Your task to perform on an android device: Open wifi settings Image 0: 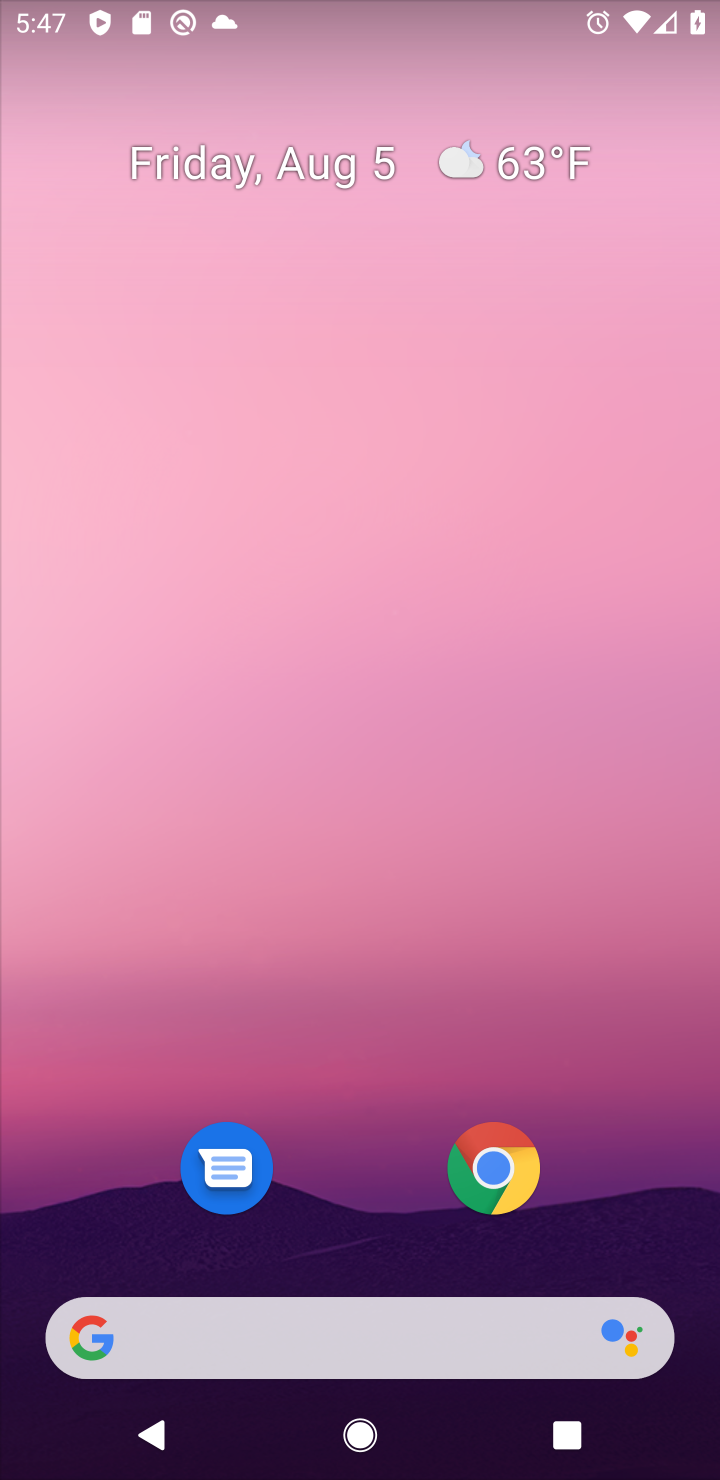
Step 0: click (328, 245)
Your task to perform on an android device: Open wifi settings Image 1: 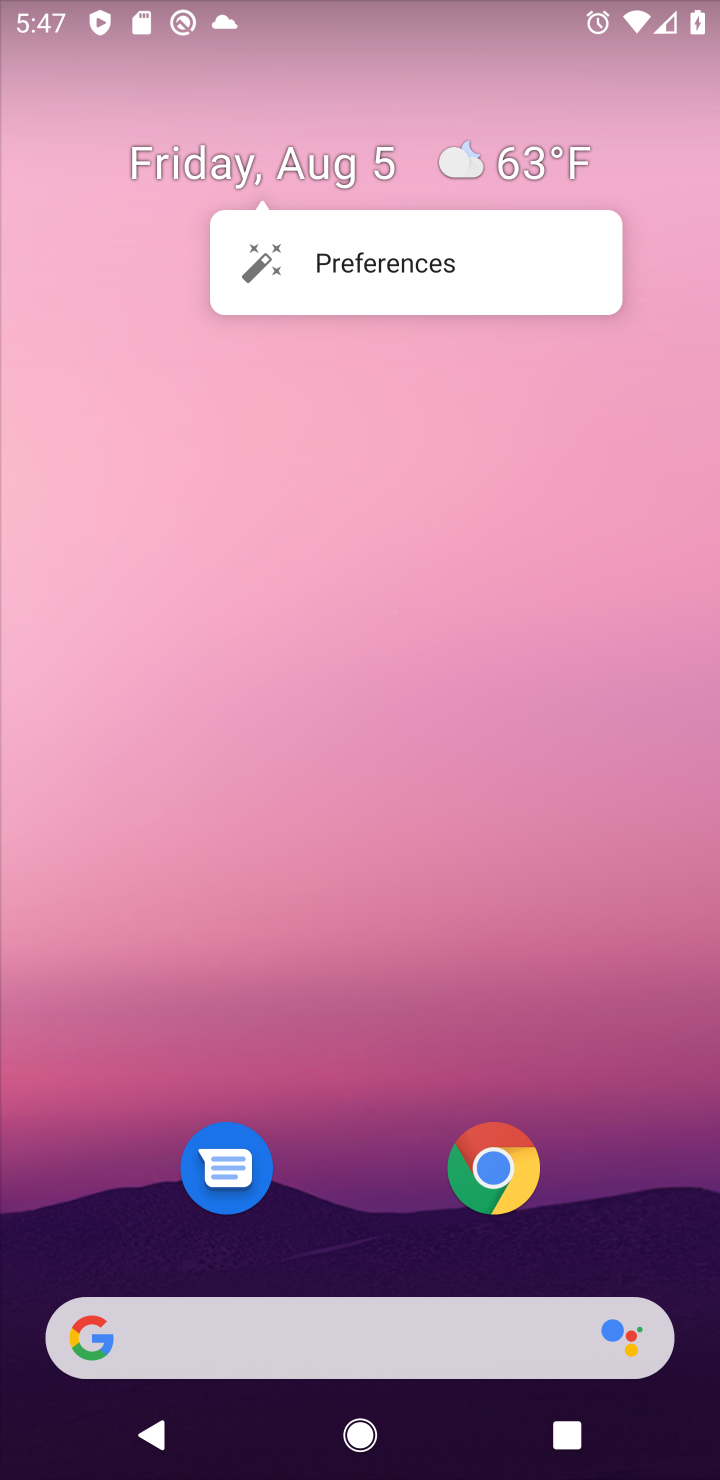
Step 1: drag from (352, 771) to (369, 286)
Your task to perform on an android device: Open wifi settings Image 2: 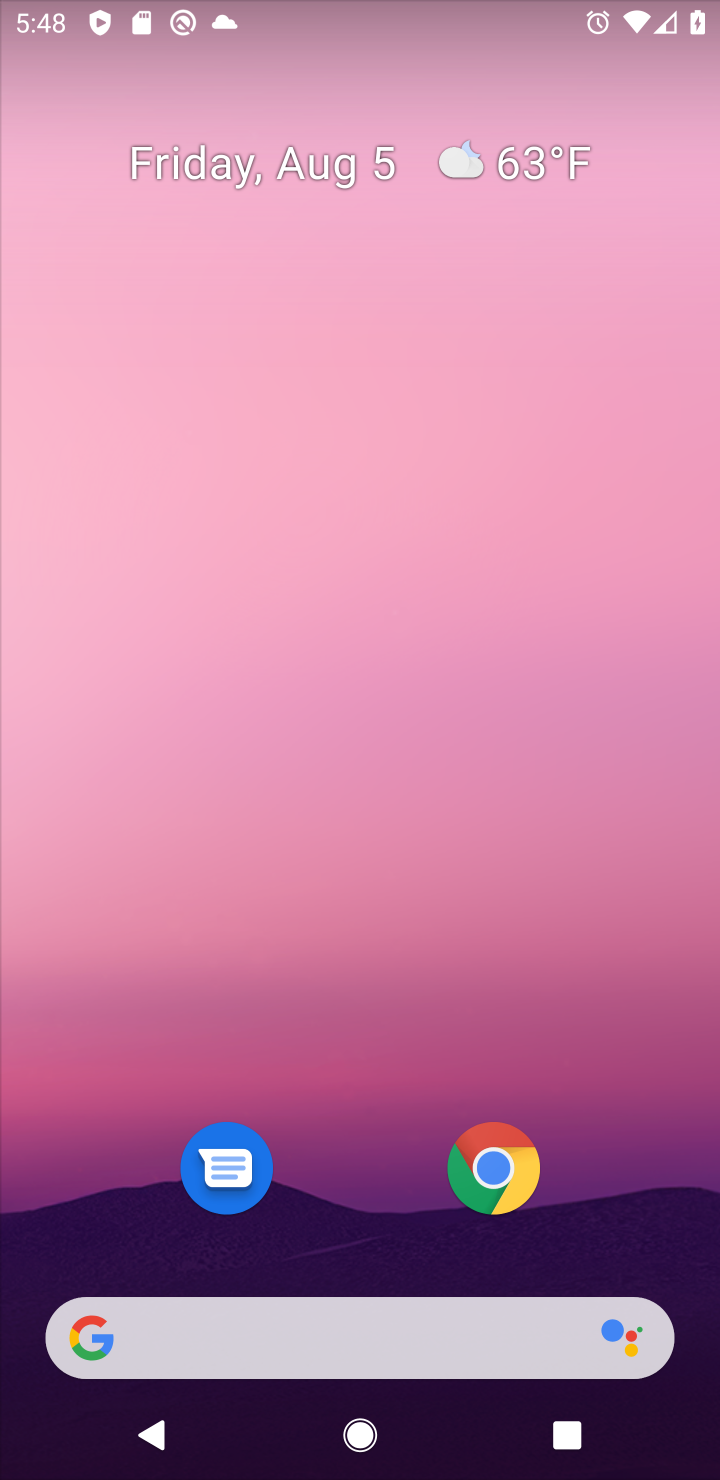
Step 2: drag from (331, 1270) to (410, 306)
Your task to perform on an android device: Open wifi settings Image 3: 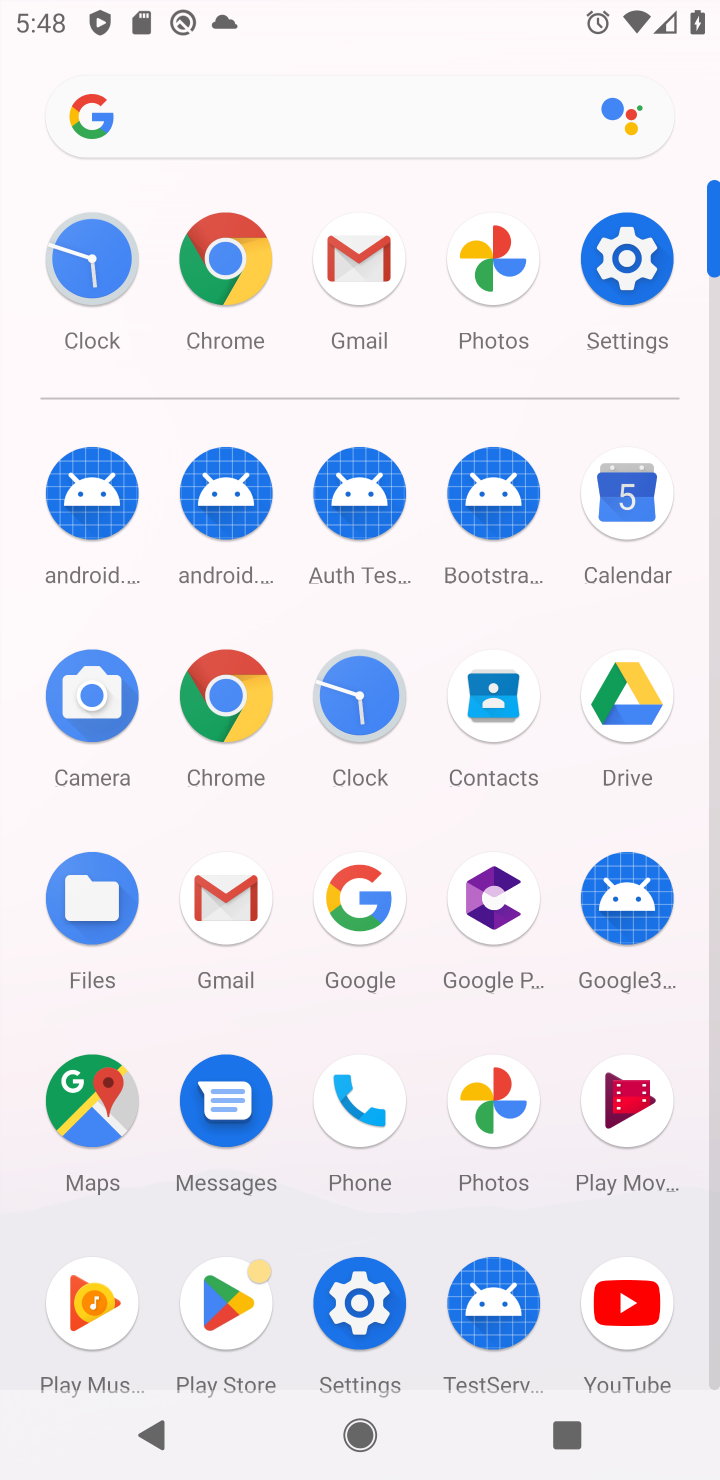
Step 3: click (635, 260)
Your task to perform on an android device: Open wifi settings Image 4: 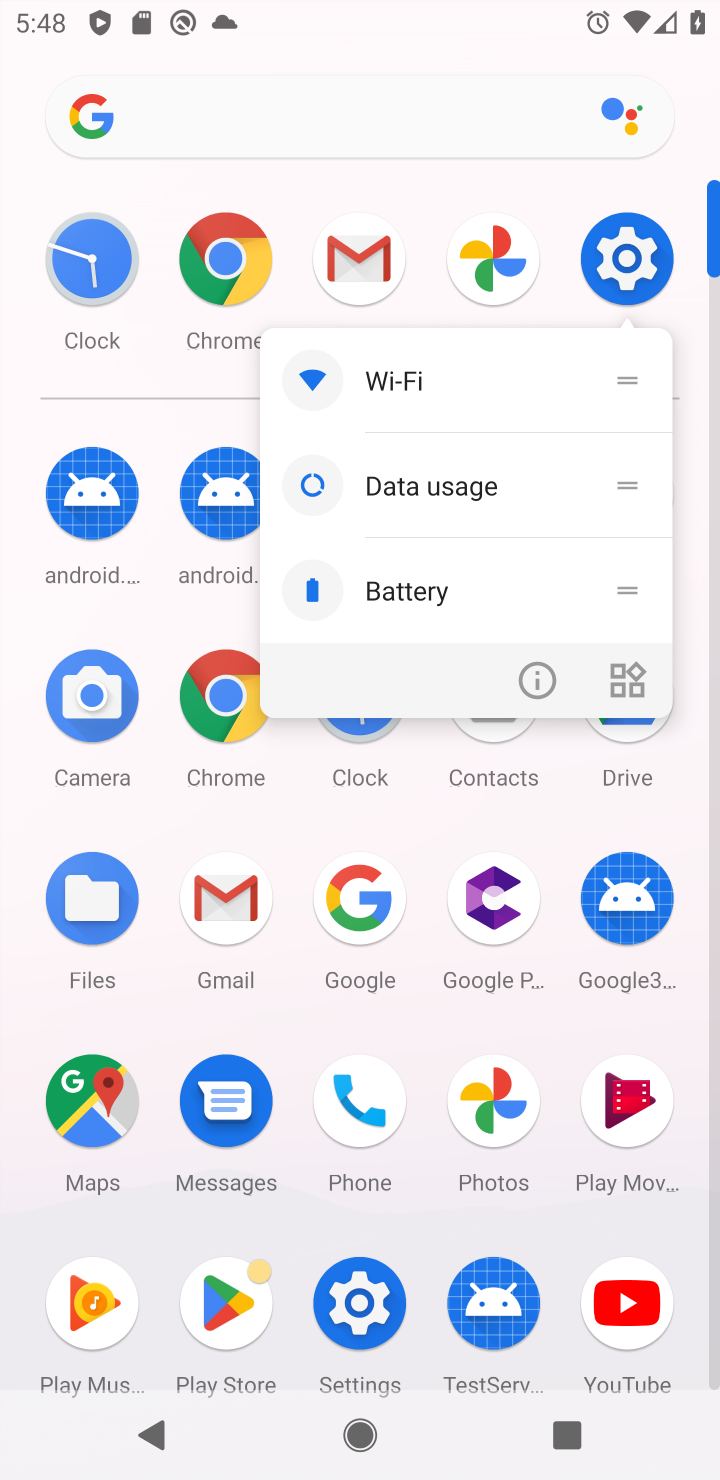
Step 4: click (635, 260)
Your task to perform on an android device: Open wifi settings Image 5: 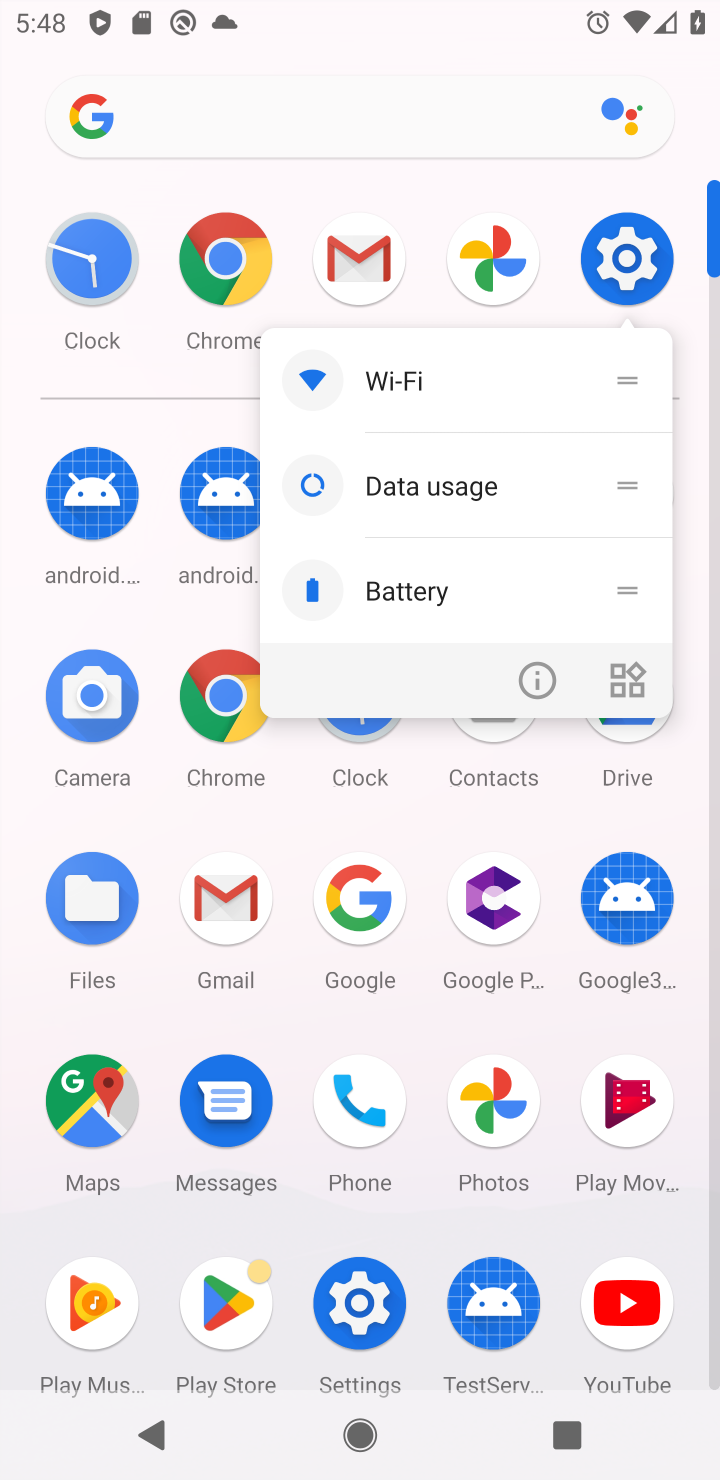
Step 5: click (356, 1301)
Your task to perform on an android device: Open wifi settings Image 6: 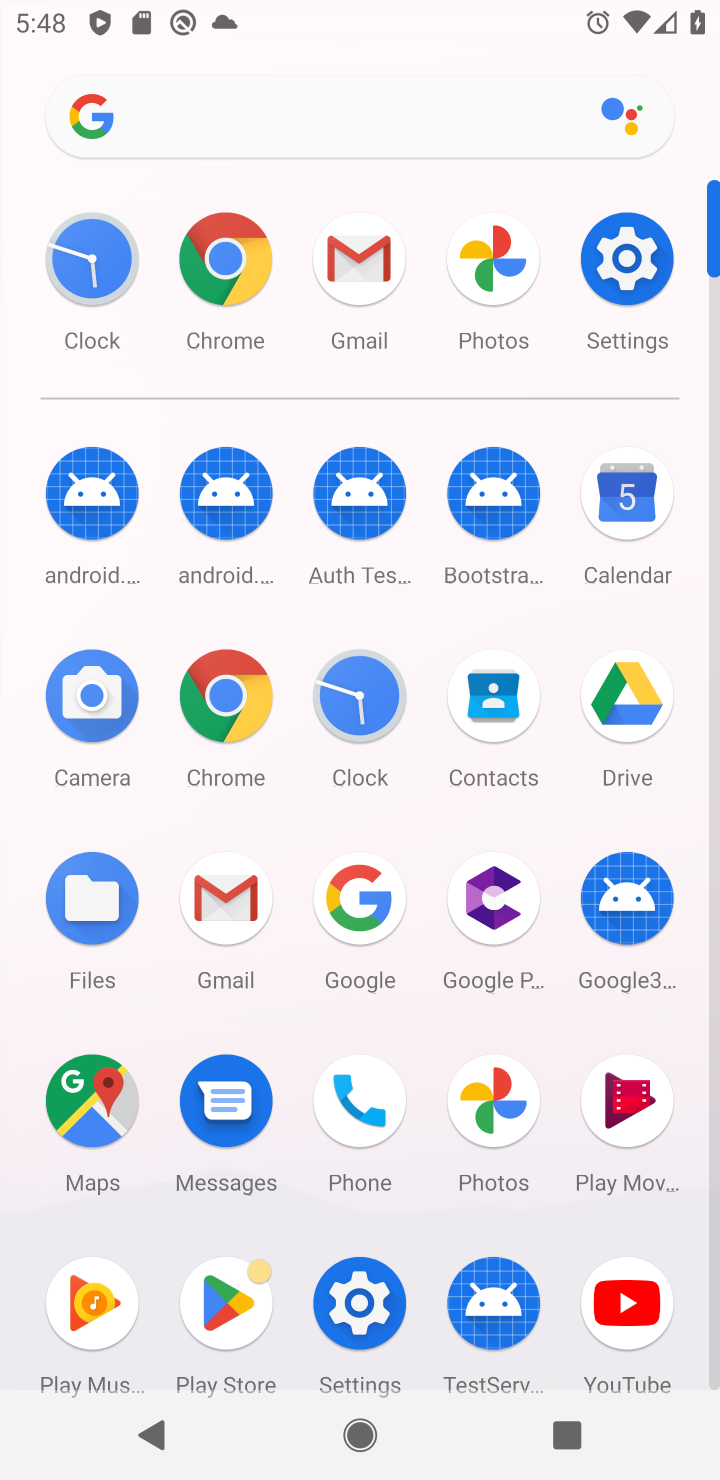
Step 6: click (356, 1301)
Your task to perform on an android device: Open wifi settings Image 7: 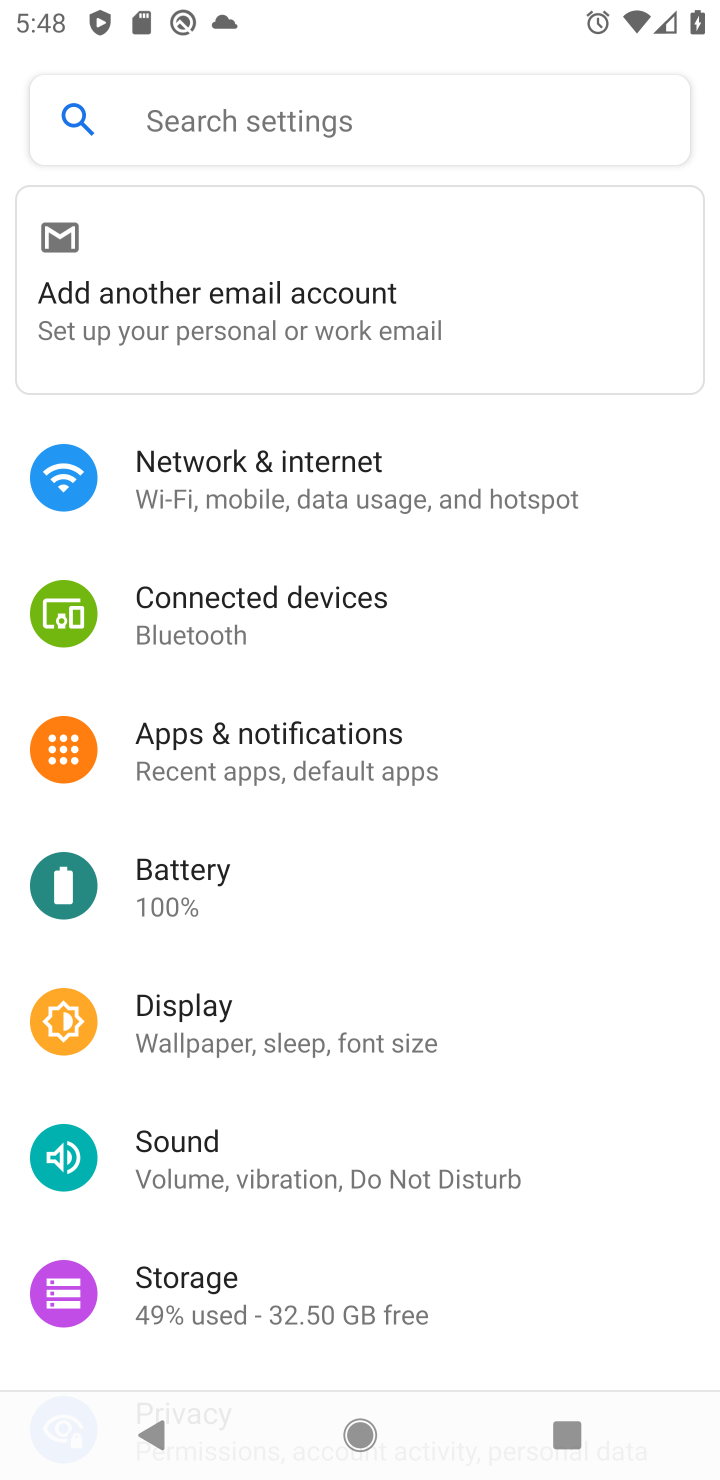
Step 7: click (218, 498)
Your task to perform on an android device: Open wifi settings Image 8: 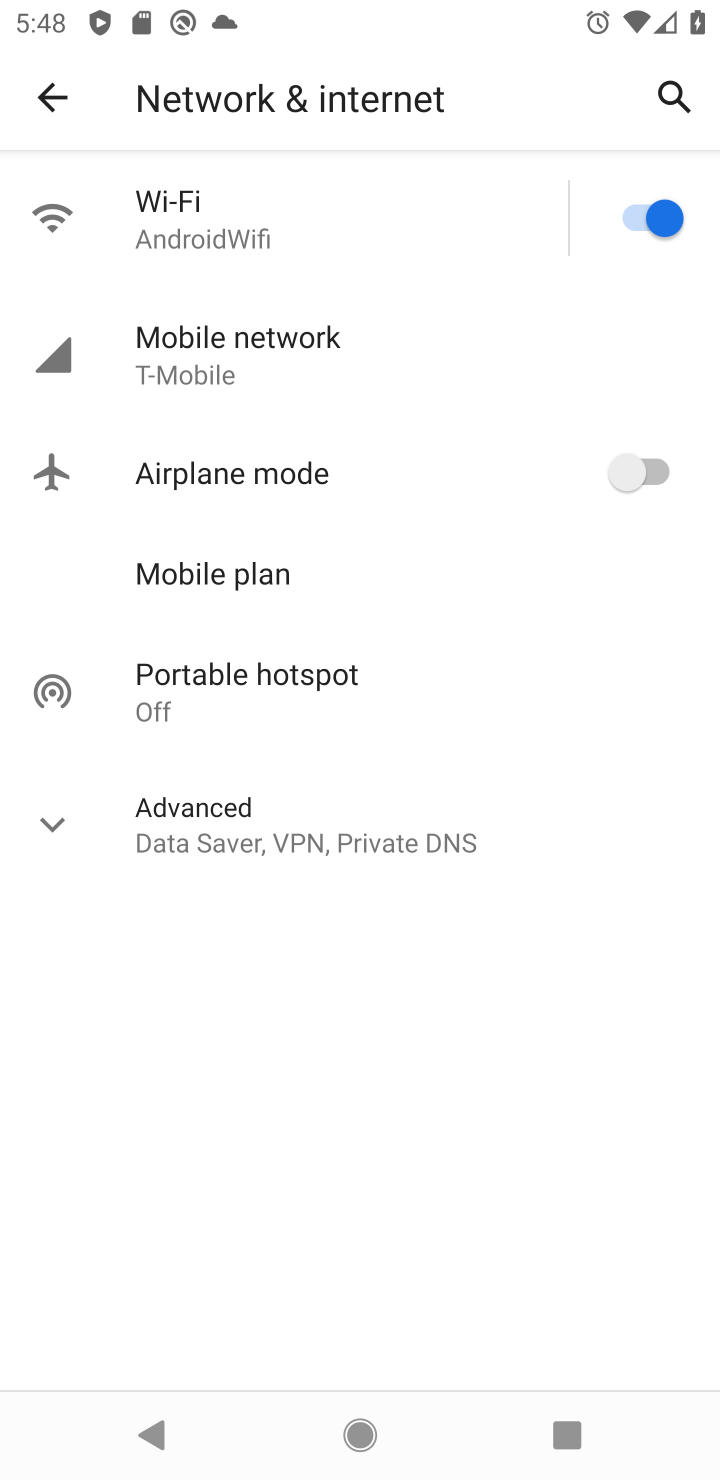
Step 8: click (212, 243)
Your task to perform on an android device: Open wifi settings Image 9: 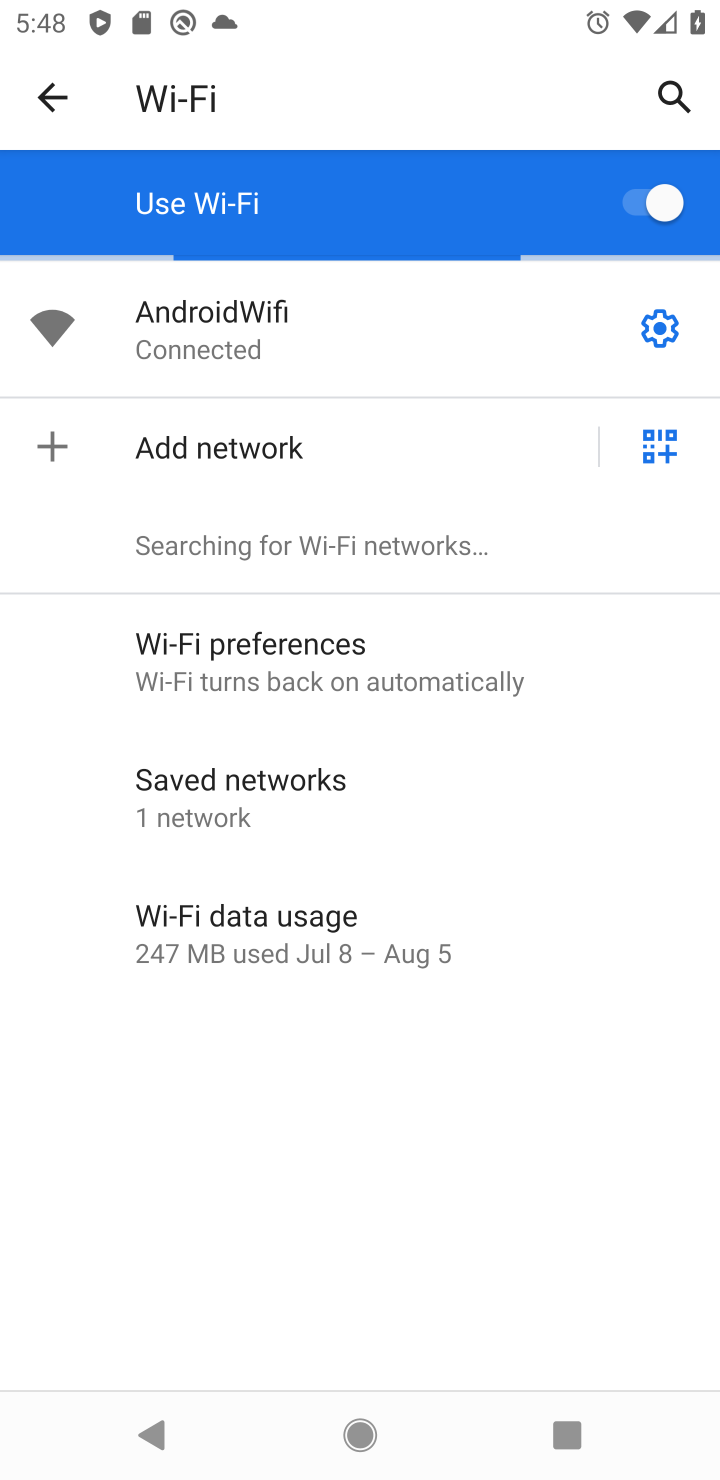
Step 9: click (204, 344)
Your task to perform on an android device: Open wifi settings Image 10: 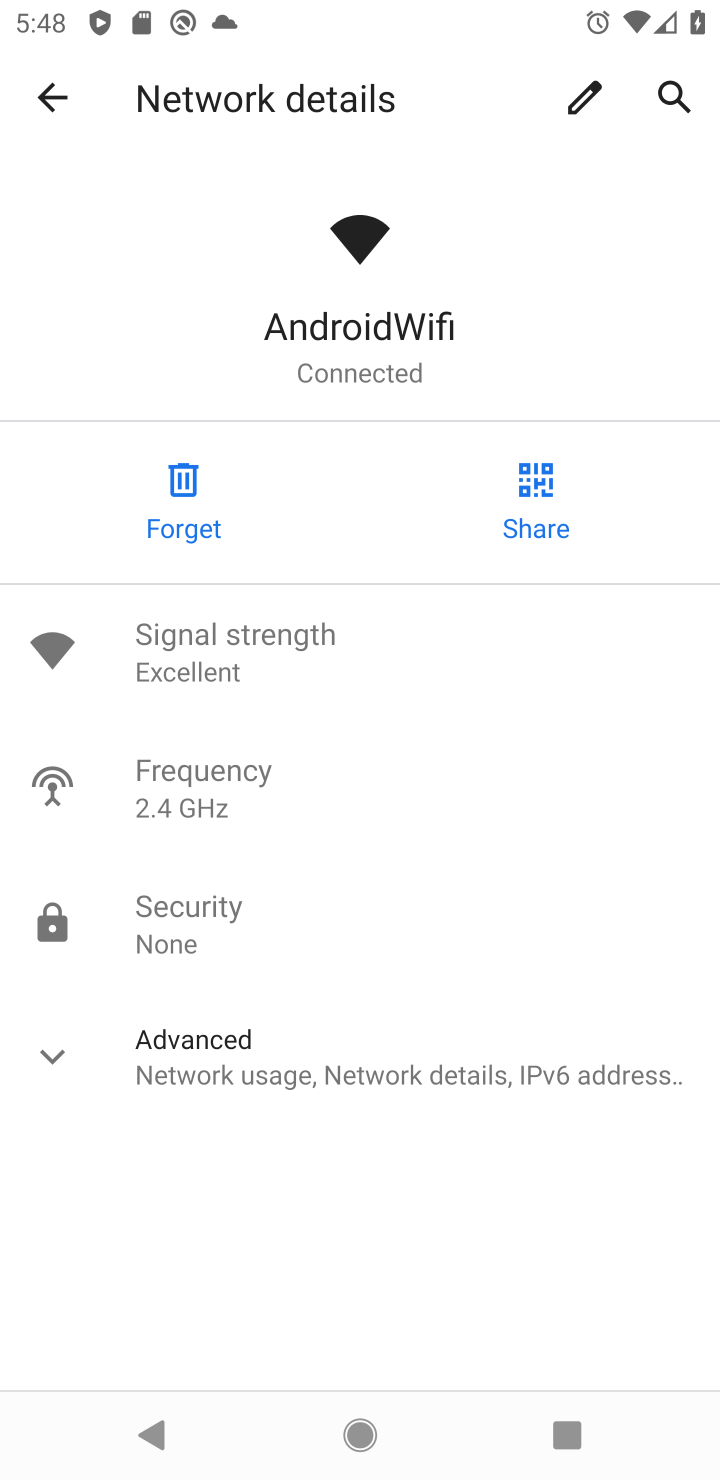
Step 10: task complete